Your task to perform on an android device: delete the emails in spam in the gmail app Image 0: 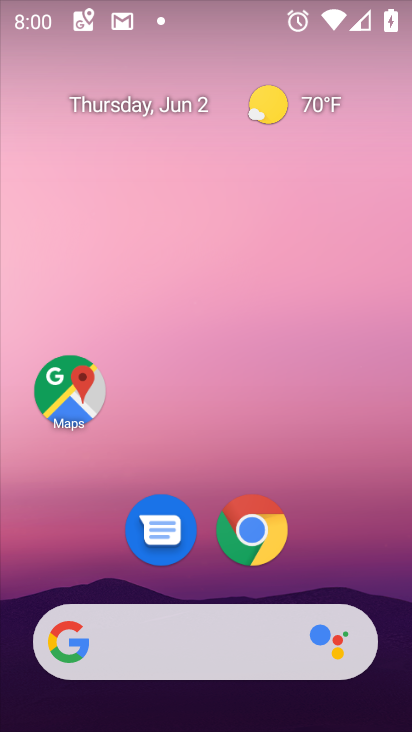
Step 0: drag from (172, 595) to (172, 331)
Your task to perform on an android device: delete the emails in spam in the gmail app Image 1: 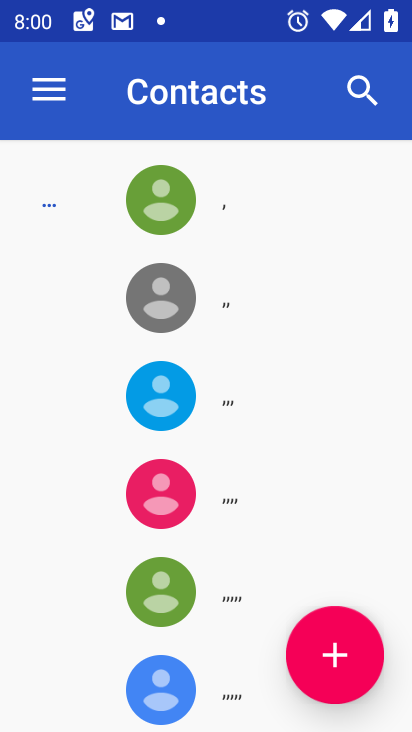
Step 1: press home button
Your task to perform on an android device: delete the emails in spam in the gmail app Image 2: 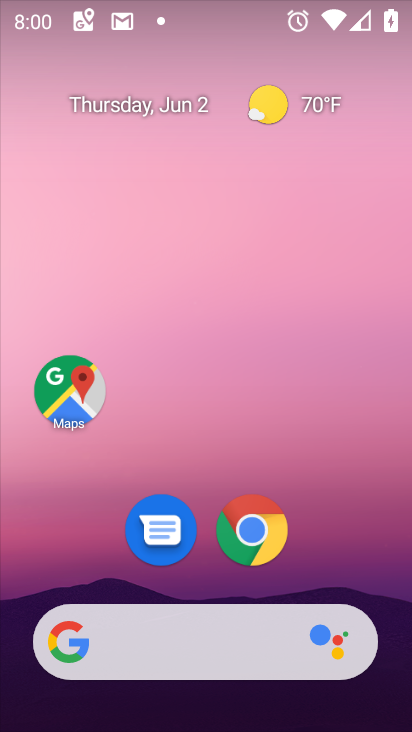
Step 2: drag from (181, 596) to (171, 296)
Your task to perform on an android device: delete the emails in spam in the gmail app Image 3: 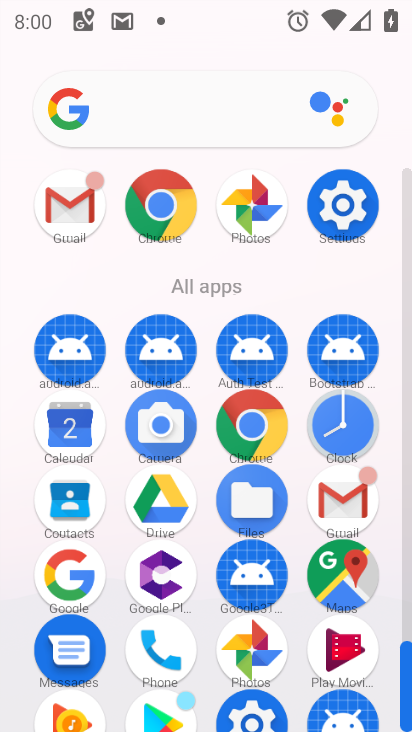
Step 3: click (77, 212)
Your task to perform on an android device: delete the emails in spam in the gmail app Image 4: 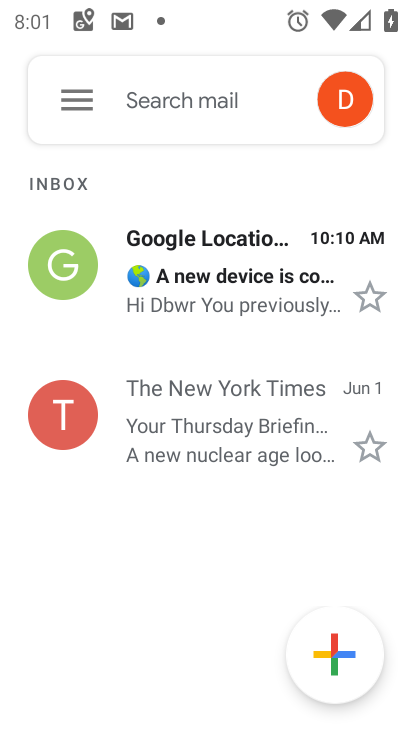
Step 4: click (70, 97)
Your task to perform on an android device: delete the emails in spam in the gmail app Image 5: 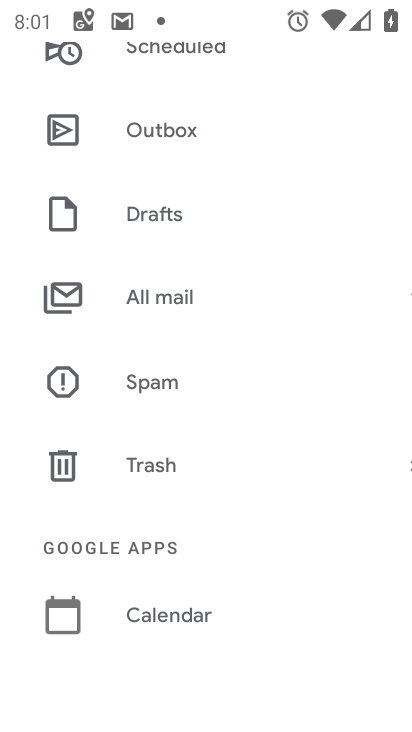
Step 5: click (161, 387)
Your task to perform on an android device: delete the emails in spam in the gmail app Image 6: 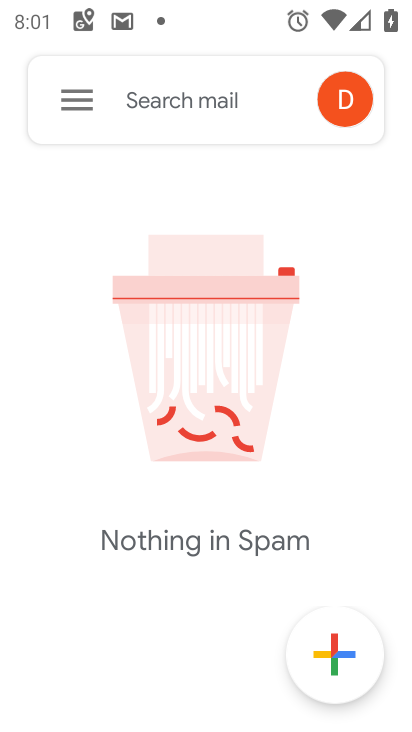
Step 6: task complete